Your task to perform on an android device: turn pop-ups on in chrome Image 0: 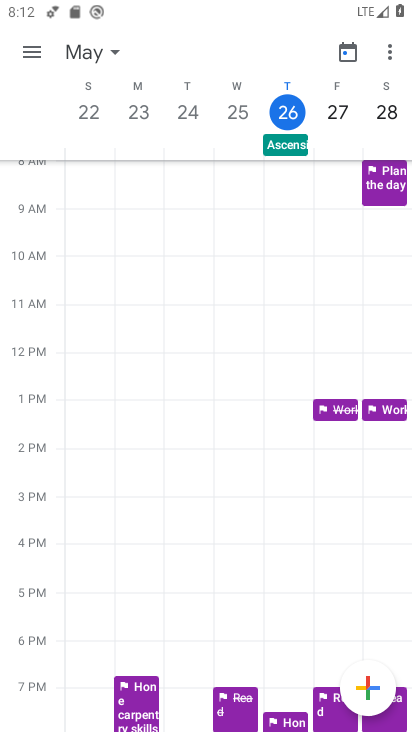
Step 0: press home button
Your task to perform on an android device: turn pop-ups on in chrome Image 1: 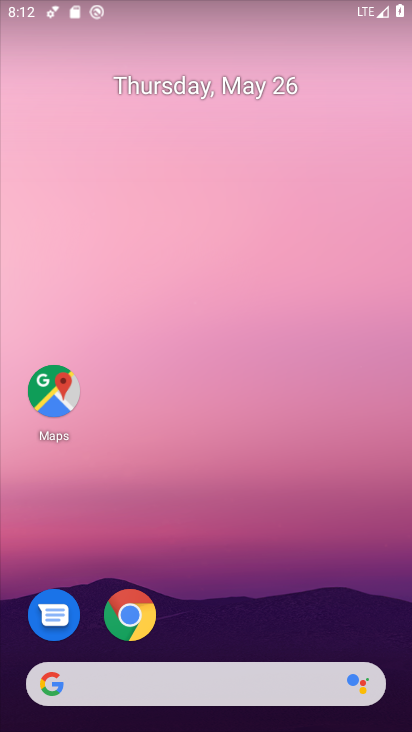
Step 1: click (128, 611)
Your task to perform on an android device: turn pop-ups on in chrome Image 2: 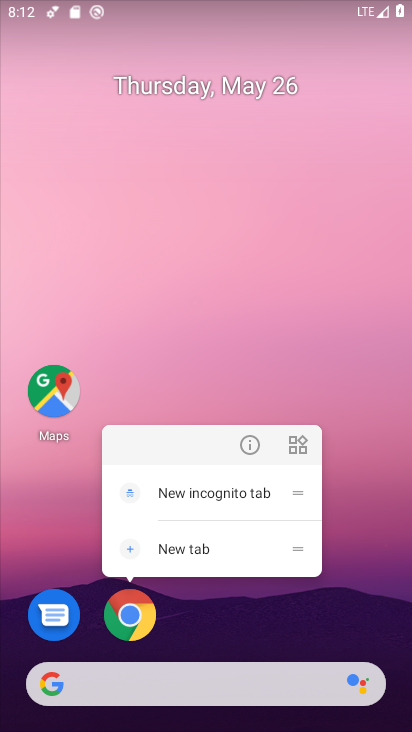
Step 2: click (135, 607)
Your task to perform on an android device: turn pop-ups on in chrome Image 3: 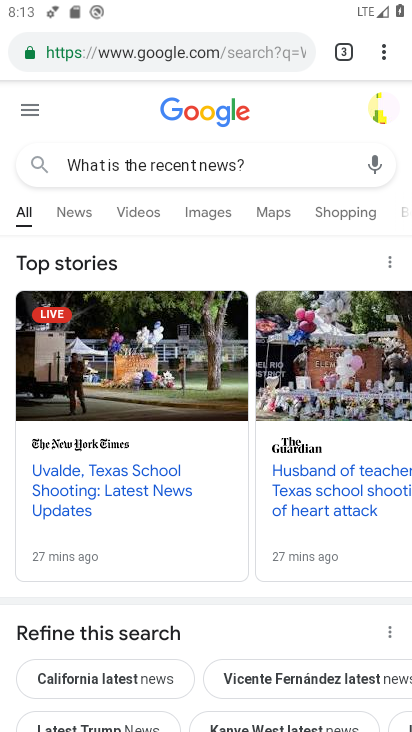
Step 3: click (383, 49)
Your task to perform on an android device: turn pop-ups on in chrome Image 4: 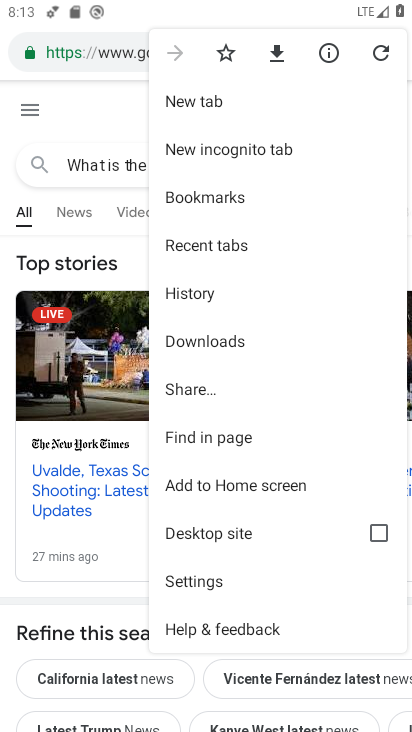
Step 4: click (233, 569)
Your task to perform on an android device: turn pop-ups on in chrome Image 5: 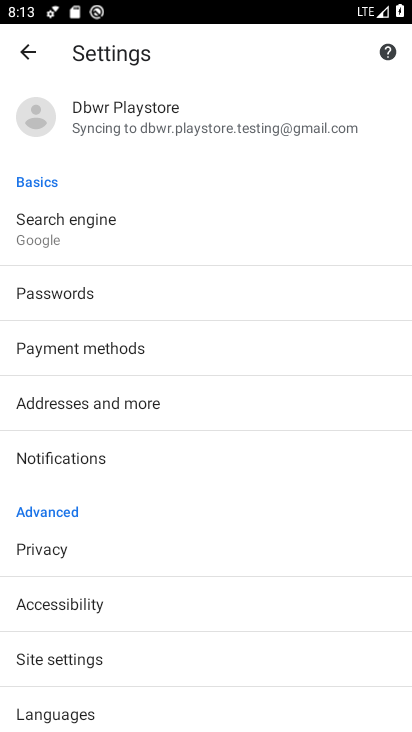
Step 5: drag from (180, 530) to (216, 297)
Your task to perform on an android device: turn pop-ups on in chrome Image 6: 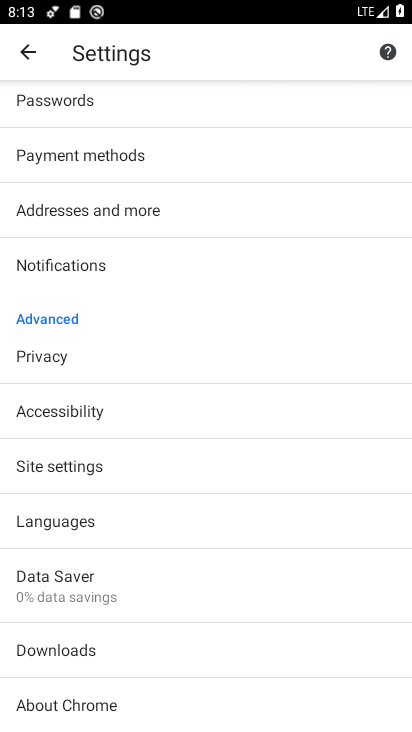
Step 6: click (115, 459)
Your task to perform on an android device: turn pop-ups on in chrome Image 7: 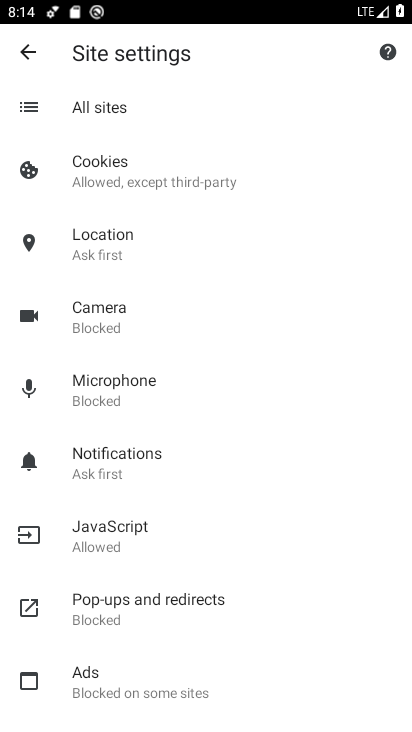
Step 7: click (155, 594)
Your task to perform on an android device: turn pop-ups on in chrome Image 8: 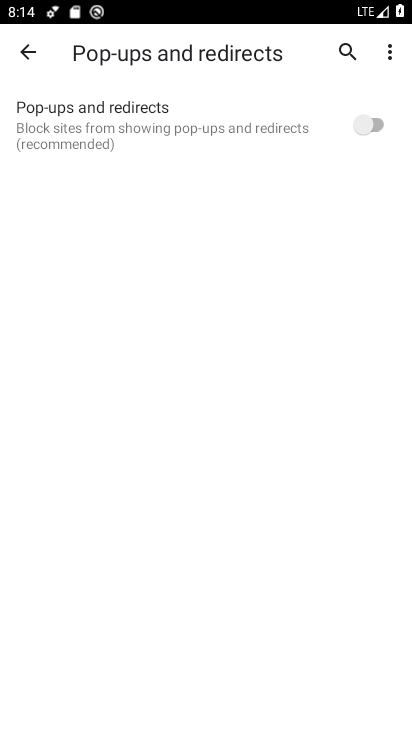
Step 8: click (377, 121)
Your task to perform on an android device: turn pop-ups on in chrome Image 9: 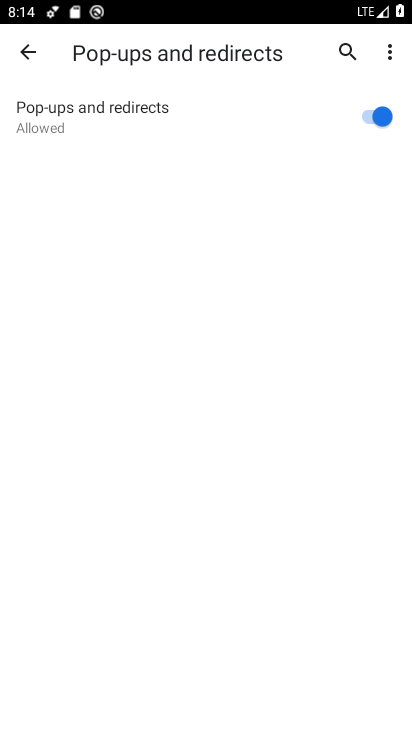
Step 9: task complete